Your task to perform on an android device: make emails show in primary in the gmail app Image 0: 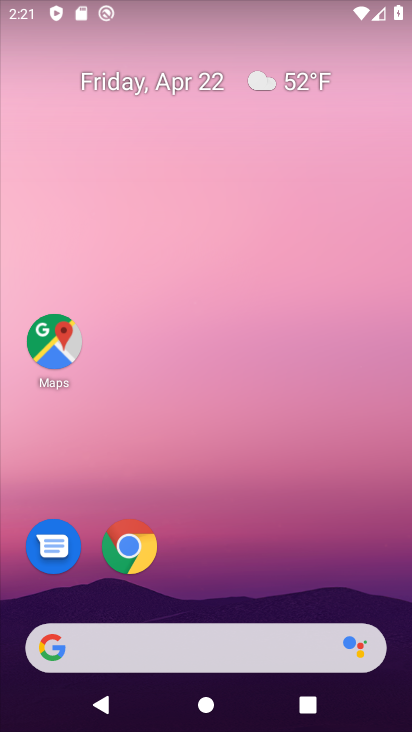
Step 0: click (402, 657)
Your task to perform on an android device: make emails show in primary in the gmail app Image 1: 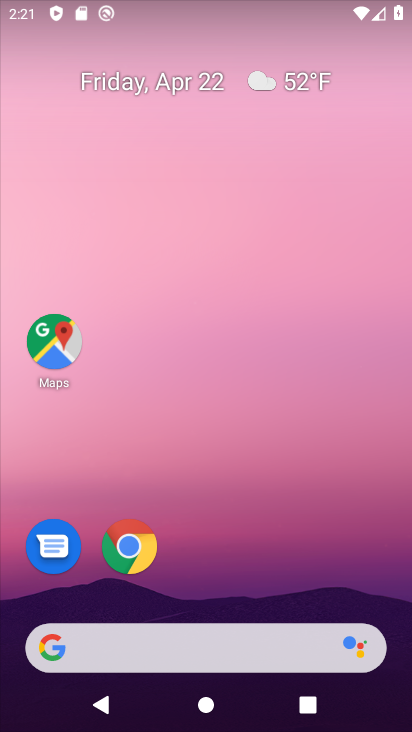
Step 1: press home button
Your task to perform on an android device: make emails show in primary in the gmail app Image 2: 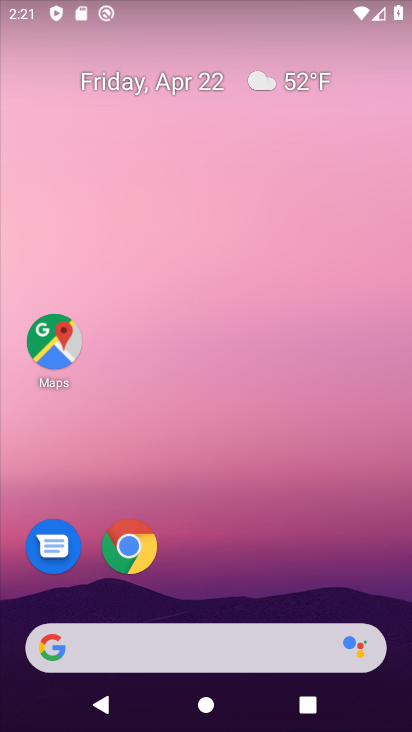
Step 2: drag from (202, 686) to (181, 128)
Your task to perform on an android device: make emails show in primary in the gmail app Image 3: 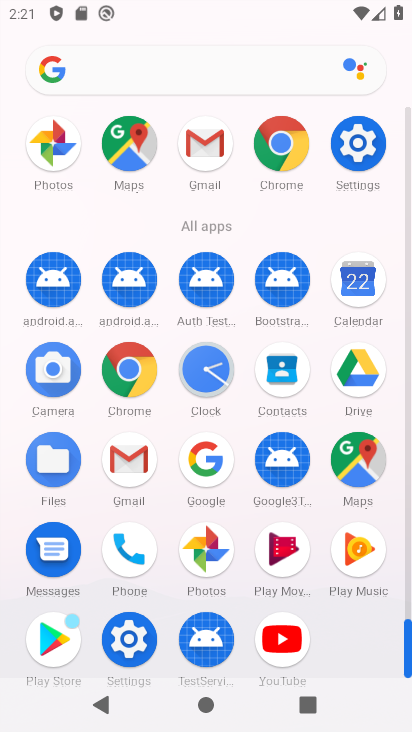
Step 3: drag from (132, 595) to (181, 345)
Your task to perform on an android device: make emails show in primary in the gmail app Image 4: 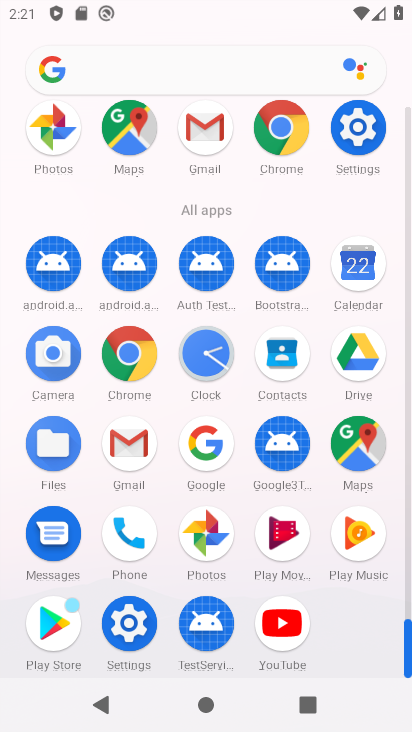
Step 4: click (129, 445)
Your task to perform on an android device: make emails show in primary in the gmail app Image 5: 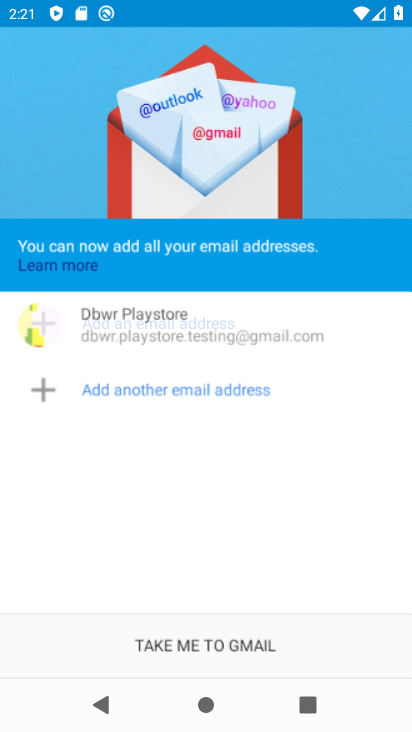
Step 5: click (129, 445)
Your task to perform on an android device: make emails show in primary in the gmail app Image 6: 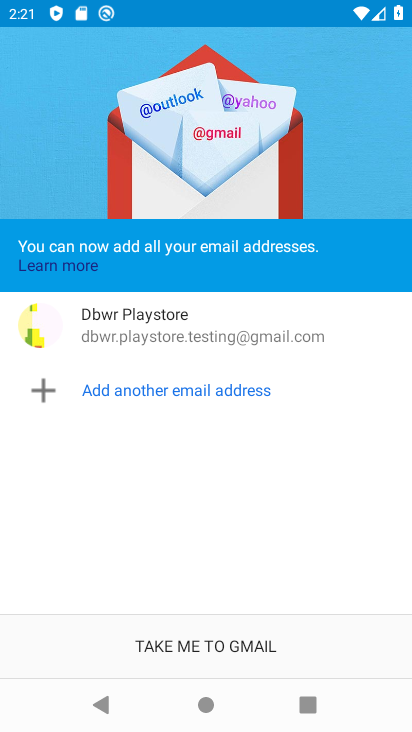
Step 6: click (199, 665)
Your task to perform on an android device: make emails show in primary in the gmail app Image 7: 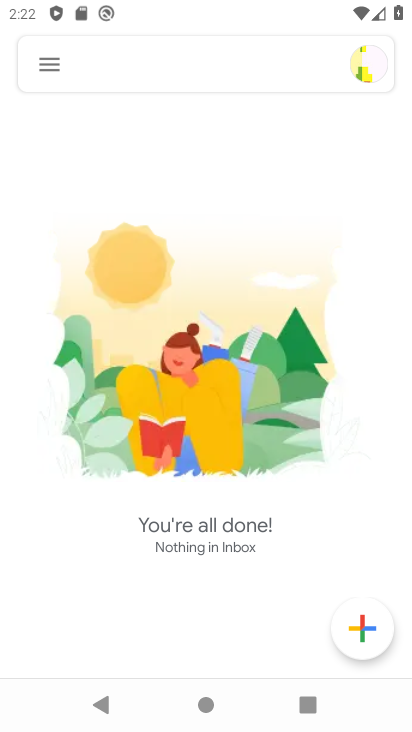
Step 7: click (43, 60)
Your task to perform on an android device: make emails show in primary in the gmail app Image 8: 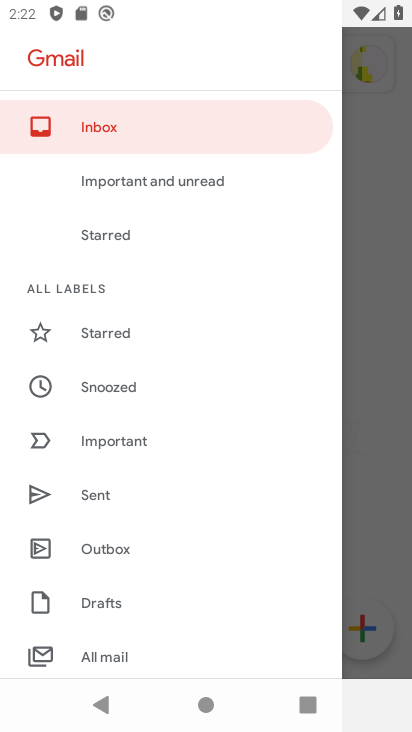
Step 8: drag from (134, 624) to (207, 121)
Your task to perform on an android device: make emails show in primary in the gmail app Image 9: 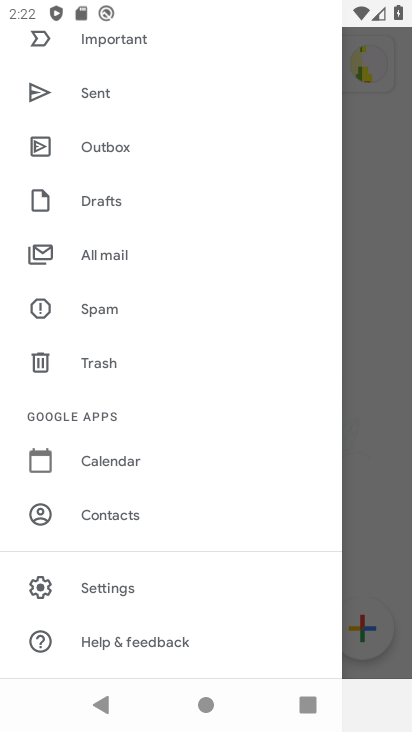
Step 9: click (123, 590)
Your task to perform on an android device: make emails show in primary in the gmail app Image 10: 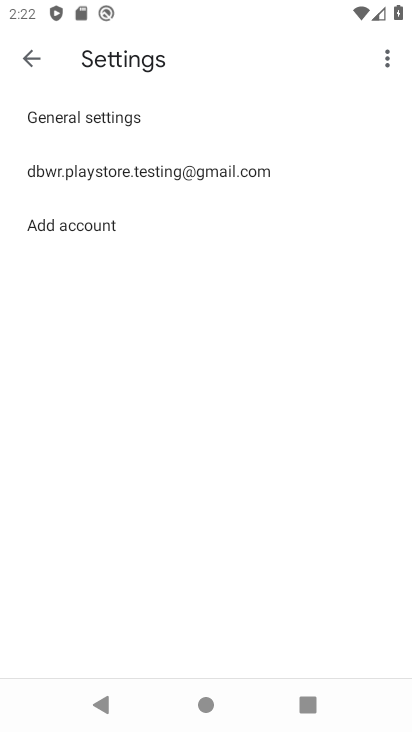
Step 10: drag from (123, 586) to (227, 195)
Your task to perform on an android device: make emails show in primary in the gmail app Image 11: 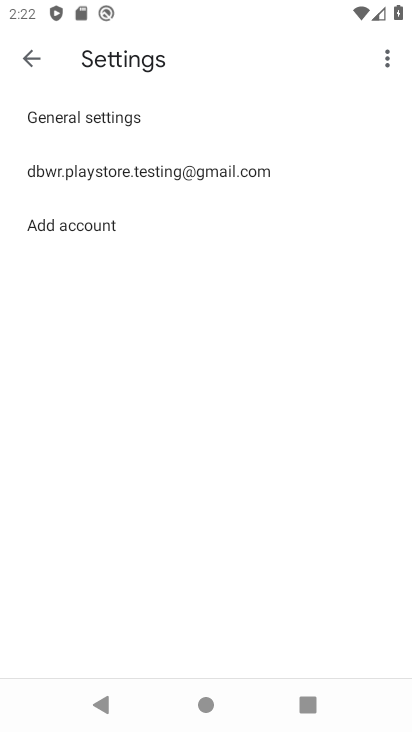
Step 11: click (134, 109)
Your task to perform on an android device: make emails show in primary in the gmail app Image 12: 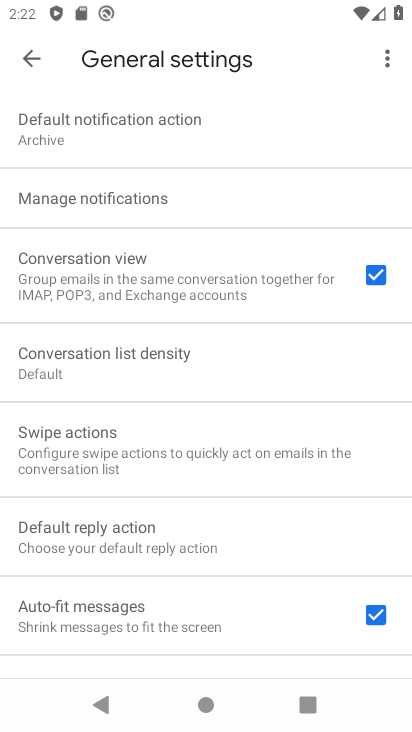
Step 12: task complete